Your task to perform on an android device: Open Youtube and go to the subscriptions tab Image 0: 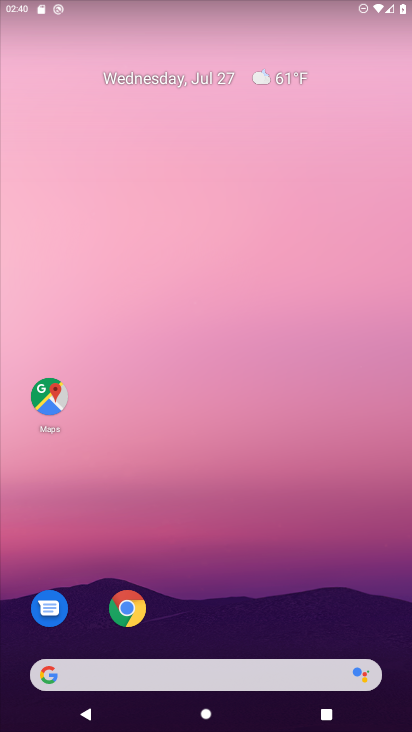
Step 0: drag from (300, 599) to (220, 98)
Your task to perform on an android device: Open Youtube and go to the subscriptions tab Image 1: 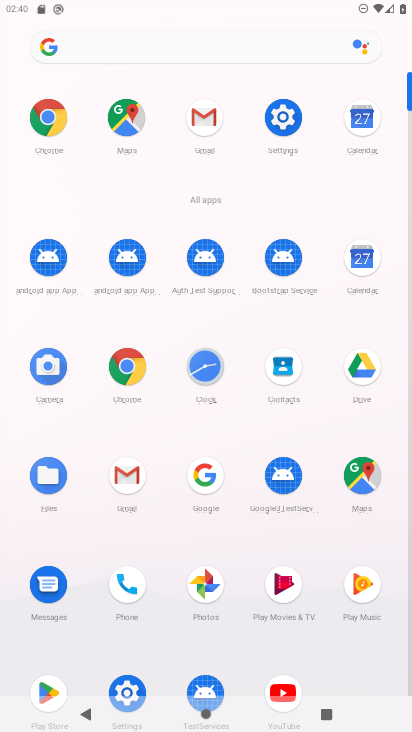
Step 1: click (280, 688)
Your task to perform on an android device: Open Youtube and go to the subscriptions tab Image 2: 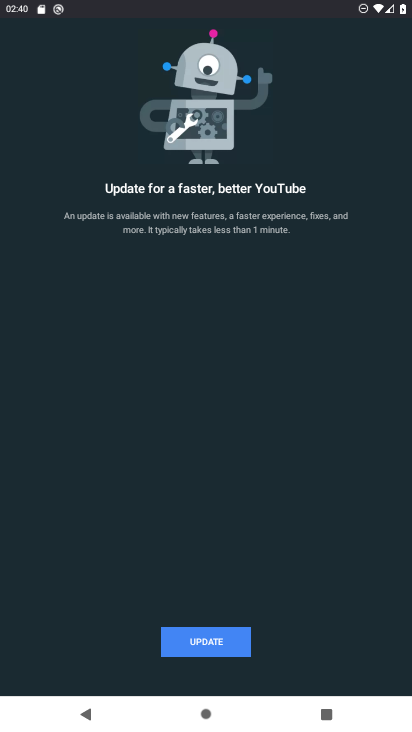
Step 2: click (212, 644)
Your task to perform on an android device: Open Youtube and go to the subscriptions tab Image 3: 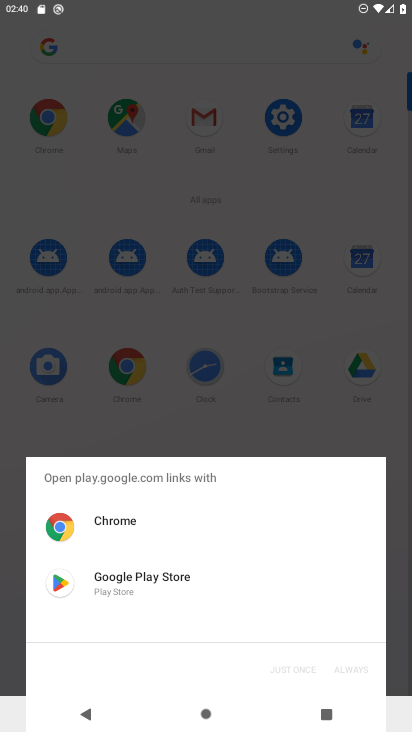
Step 3: click (217, 583)
Your task to perform on an android device: Open Youtube and go to the subscriptions tab Image 4: 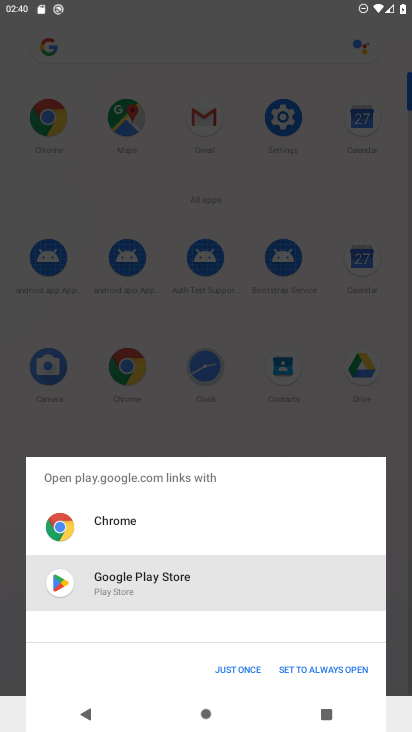
Step 4: click (239, 662)
Your task to perform on an android device: Open Youtube and go to the subscriptions tab Image 5: 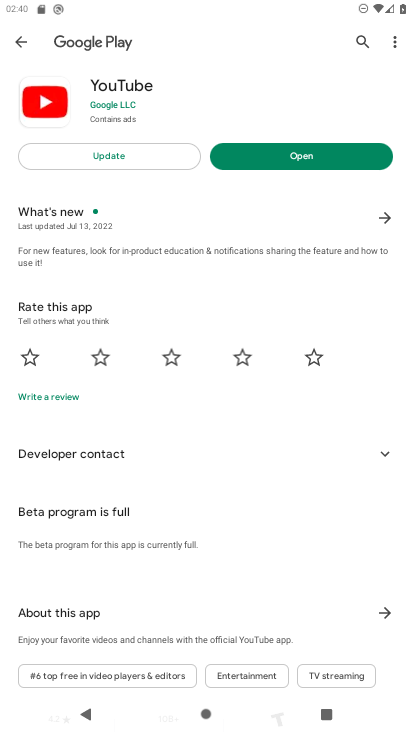
Step 5: click (106, 151)
Your task to perform on an android device: Open Youtube and go to the subscriptions tab Image 6: 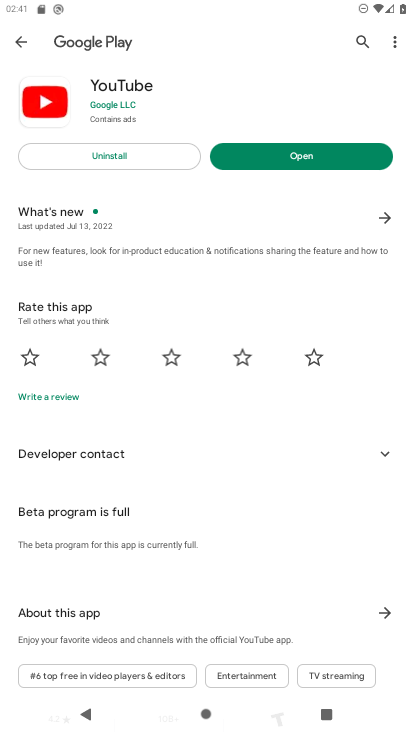
Step 6: click (345, 157)
Your task to perform on an android device: Open Youtube and go to the subscriptions tab Image 7: 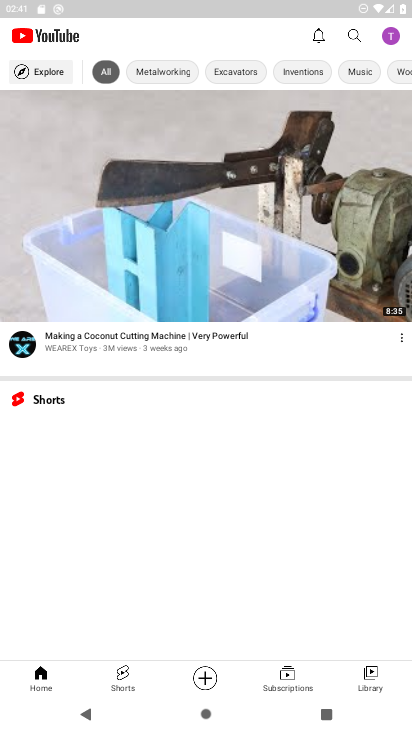
Step 7: click (292, 664)
Your task to perform on an android device: Open Youtube and go to the subscriptions tab Image 8: 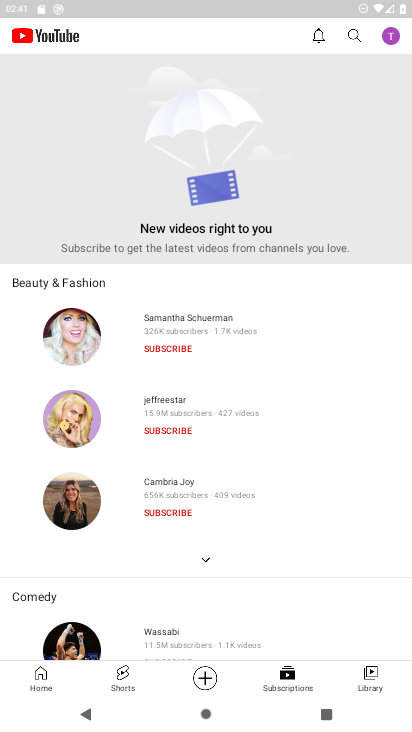
Step 8: task complete